Your task to perform on an android device: See recent photos Image 0: 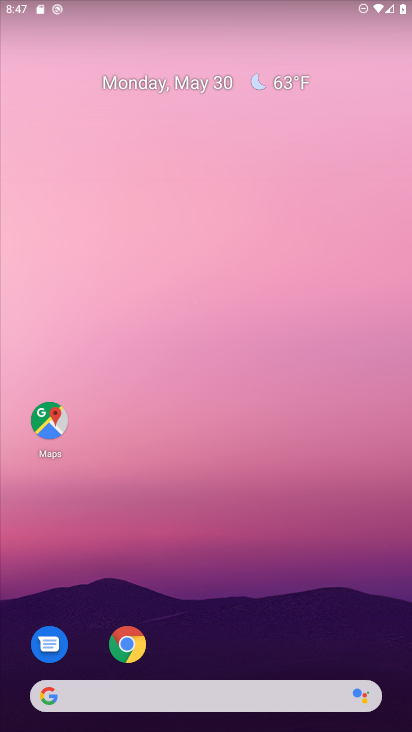
Step 0: drag from (250, 594) to (233, 42)
Your task to perform on an android device: See recent photos Image 1: 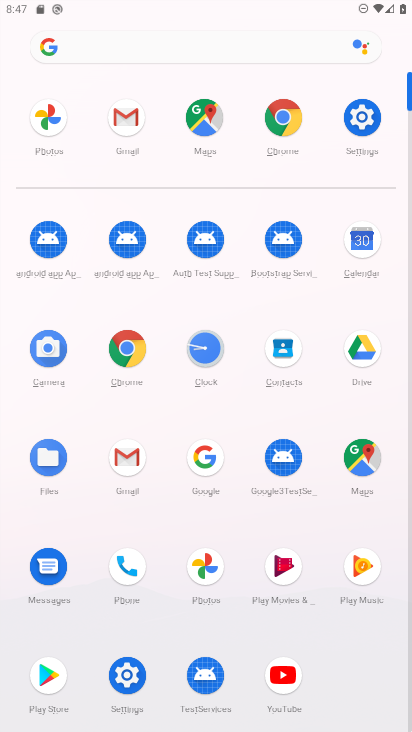
Step 1: click (206, 557)
Your task to perform on an android device: See recent photos Image 2: 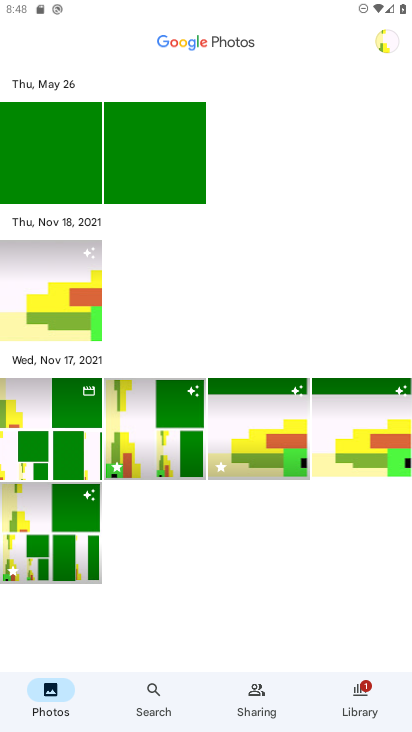
Step 2: task complete